Your task to perform on an android device: Do I have any events this weekend? Image 0: 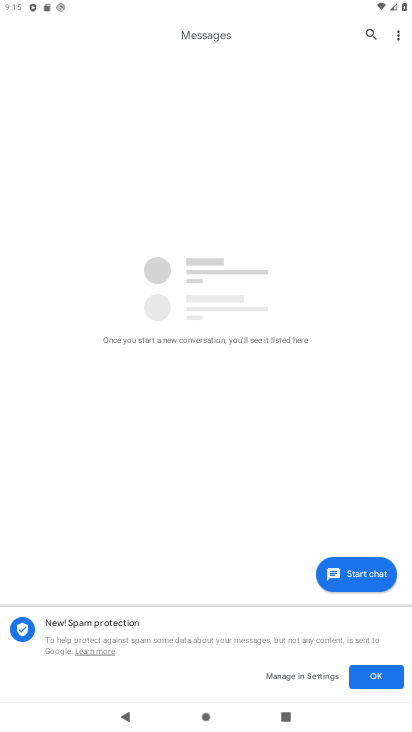
Step 0: press home button
Your task to perform on an android device: Do I have any events this weekend? Image 1: 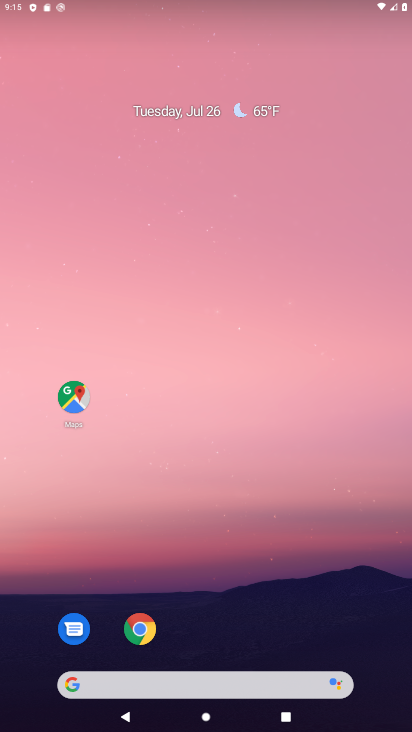
Step 1: drag from (325, 485) to (221, 79)
Your task to perform on an android device: Do I have any events this weekend? Image 2: 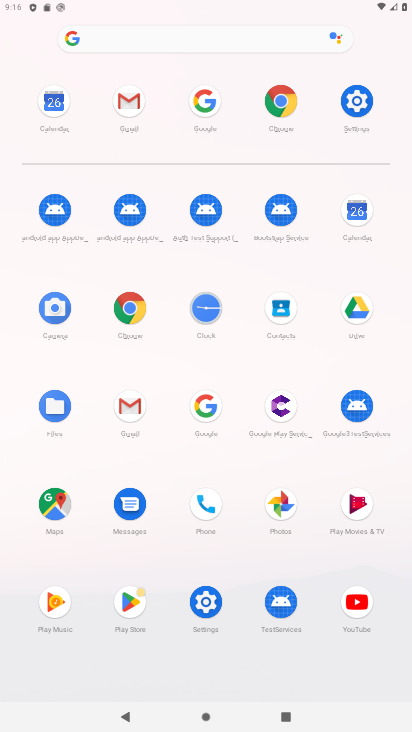
Step 2: click (364, 221)
Your task to perform on an android device: Do I have any events this weekend? Image 3: 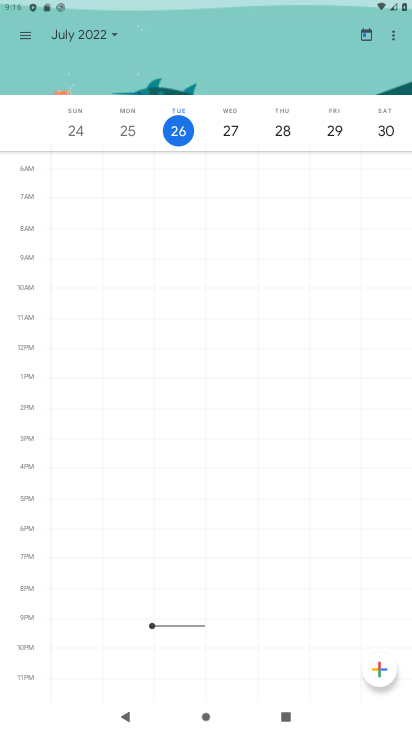
Step 3: click (374, 121)
Your task to perform on an android device: Do I have any events this weekend? Image 4: 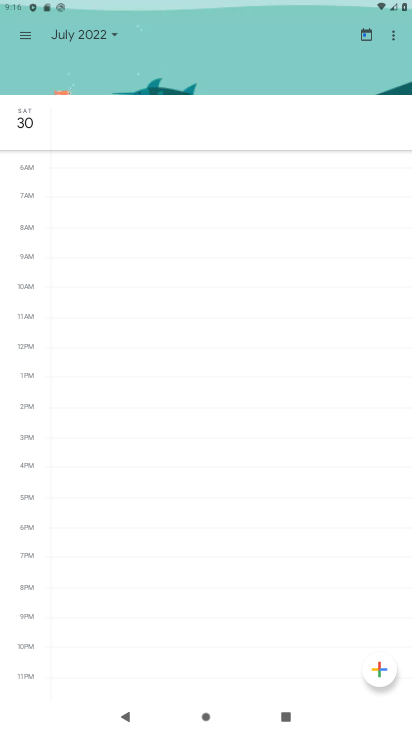
Step 4: task complete